Your task to perform on an android device: remove spam from my inbox in the gmail app Image 0: 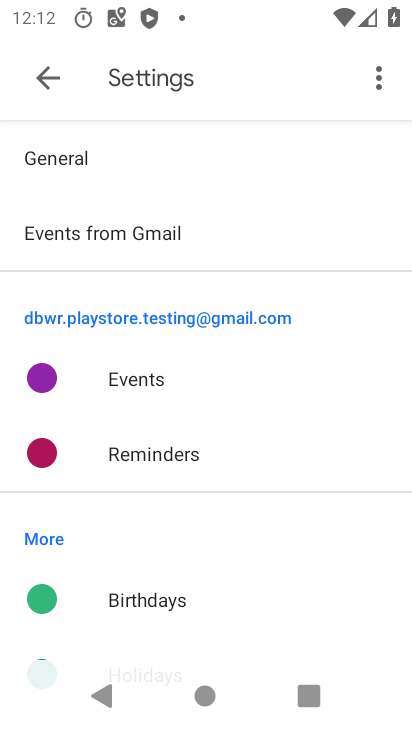
Step 0: press home button
Your task to perform on an android device: remove spam from my inbox in the gmail app Image 1: 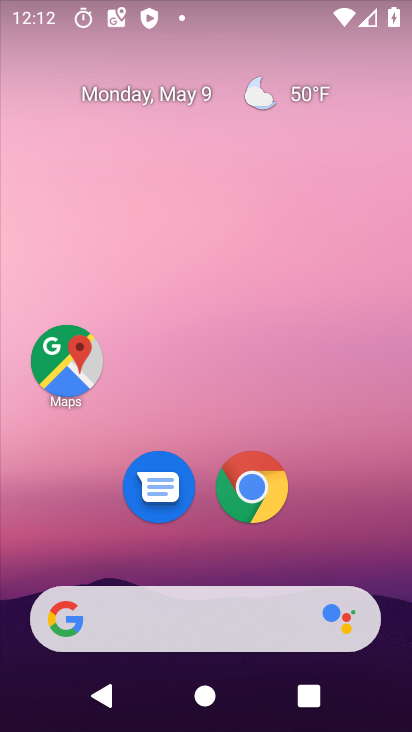
Step 1: drag from (344, 528) to (344, 159)
Your task to perform on an android device: remove spam from my inbox in the gmail app Image 2: 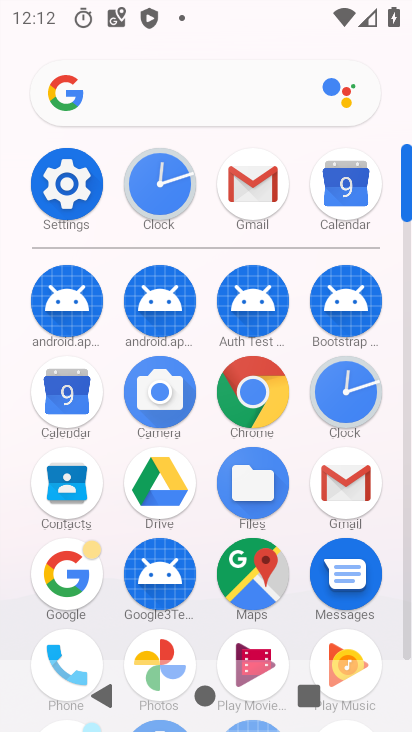
Step 2: click (267, 202)
Your task to perform on an android device: remove spam from my inbox in the gmail app Image 3: 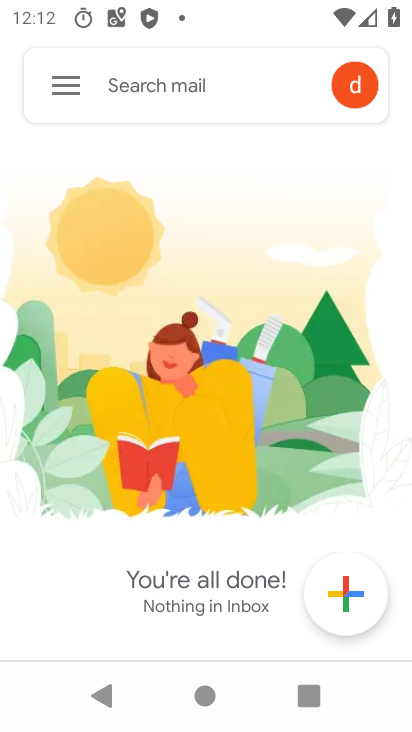
Step 3: click (68, 82)
Your task to perform on an android device: remove spam from my inbox in the gmail app Image 4: 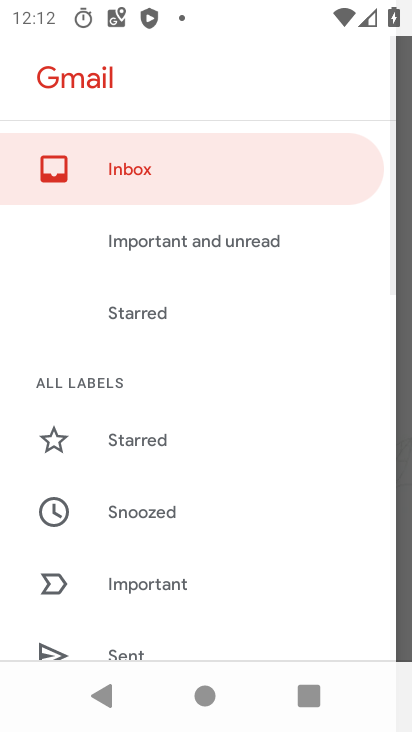
Step 4: drag from (175, 577) to (181, 183)
Your task to perform on an android device: remove spam from my inbox in the gmail app Image 5: 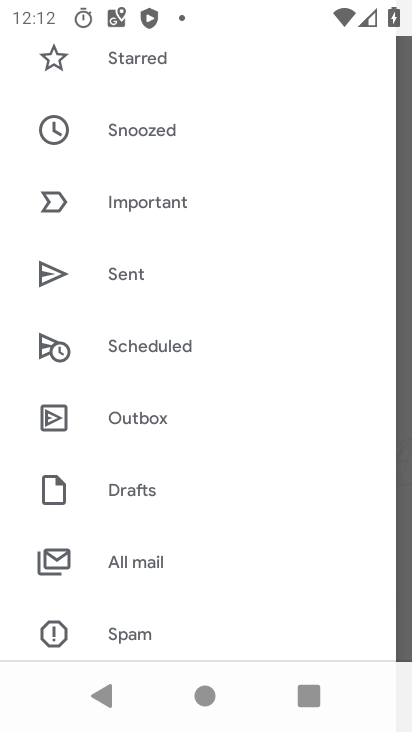
Step 5: click (139, 632)
Your task to perform on an android device: remove spam from my inbox in the gmail app Image 6: 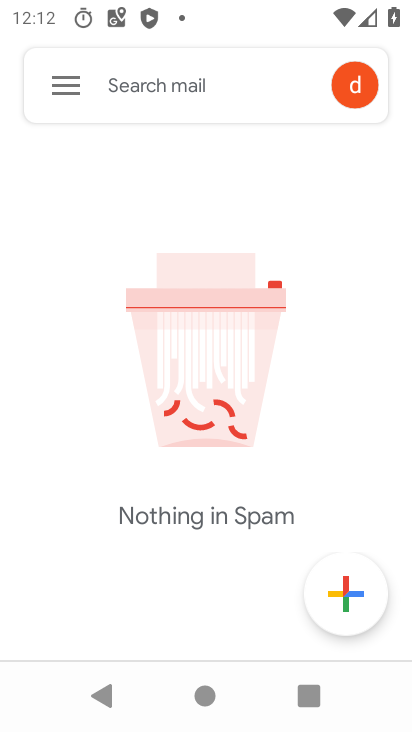
Step 6: task complete